Your task to perform on an android device: Open the calendar app, open the side menu, and click the "Day" option Image 0: 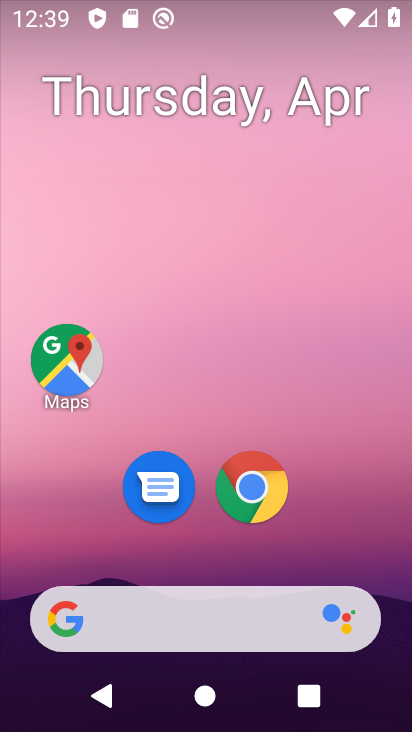
Step 0: drag from (396, 538) to (367, 87)
Your task to perform on an android device: Open the calendar app, open the side menu, and click the "Day" option Image 1: 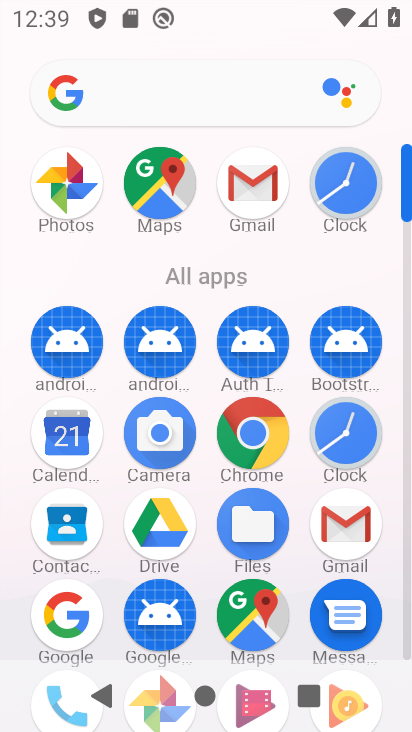
Step 1: click (79, 446)
Your task to perform on an android device: Open the calendar app, open the side menu, and click the "Day" option Image 2: 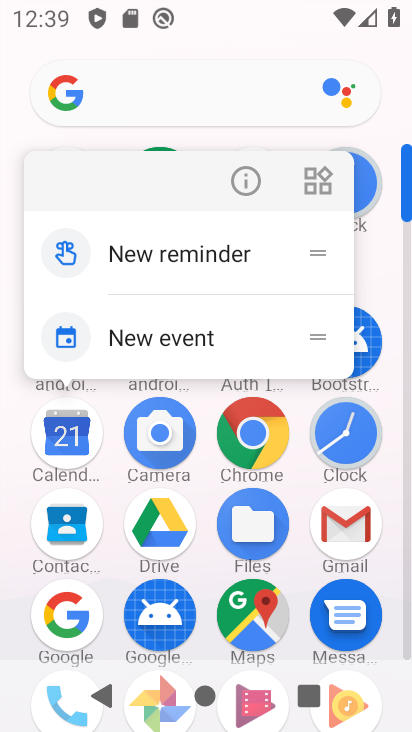
Step 2: click (76, 434)
Your task to perform on an android device: Open the calendar app, open the side menu, and click the "Day" option Image 3: 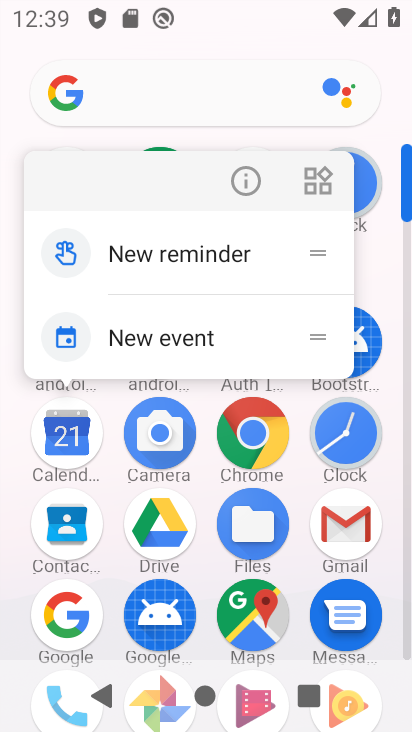
Step 3: click (76, 434)
Your task to perform on an android device: Open the calendar app, open the side menu, and click the "Day" option Image 4: 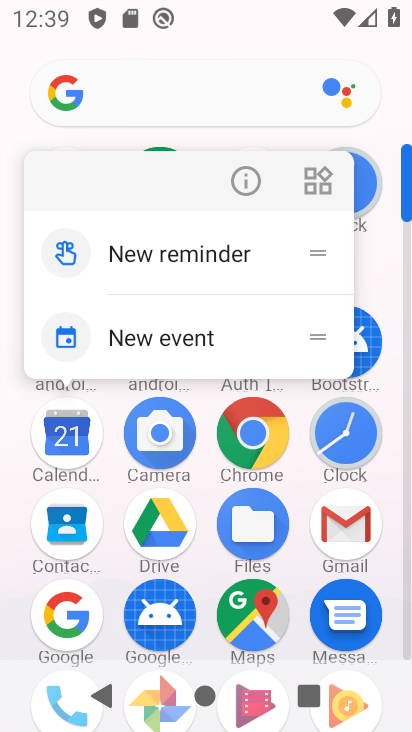
Step 4: click (71, 454)
Your task to perform on an android device: Open the calendar app, open the side menu, and click the "Day" option Image 5: 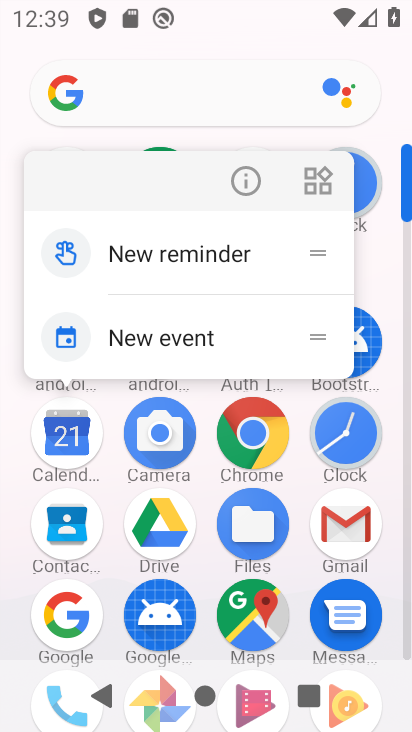
Step 5: click (71, 431)
Your task to perform on an android device: Open the calendar app, open the side menu, and click the "Day" option Image 6: 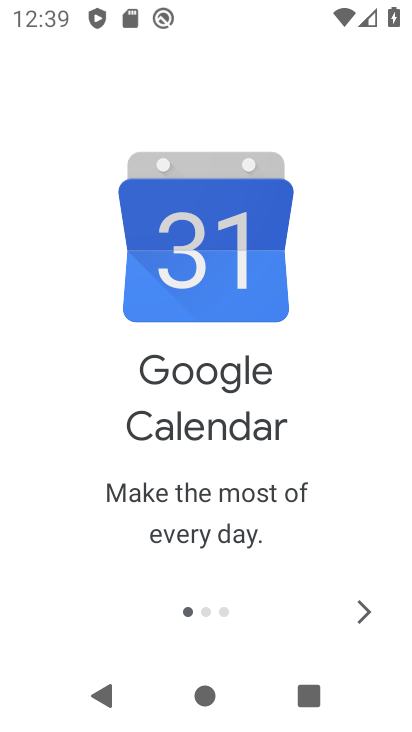
Step 6: click (361, 609)
Your task to perform on an android device: Open the calendar app, open the side menu, and click the "Day" option Image 7: 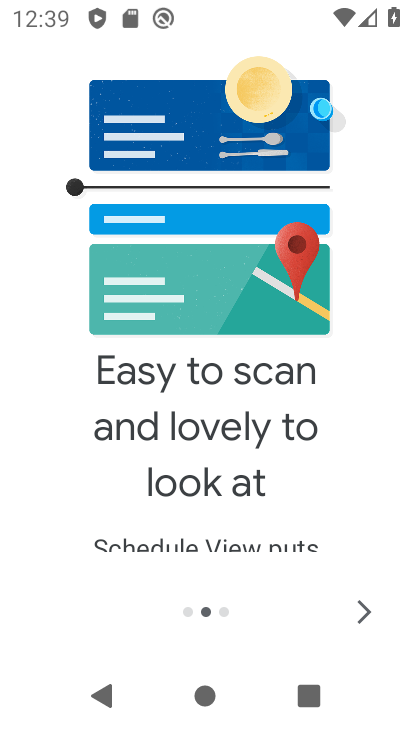
Step 7: click (361, 607)
Your task to perform on an android device: Open the calendar app, open the side menu, and click the "Day" option Image 8: 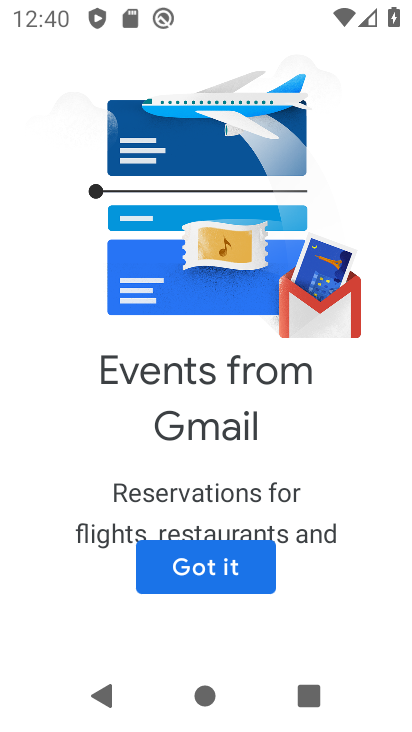
Step 8: click (208, 558)
Your task to perform on an android device: Open the calendar app, open the side menu, and click the "Day" option Image 9: 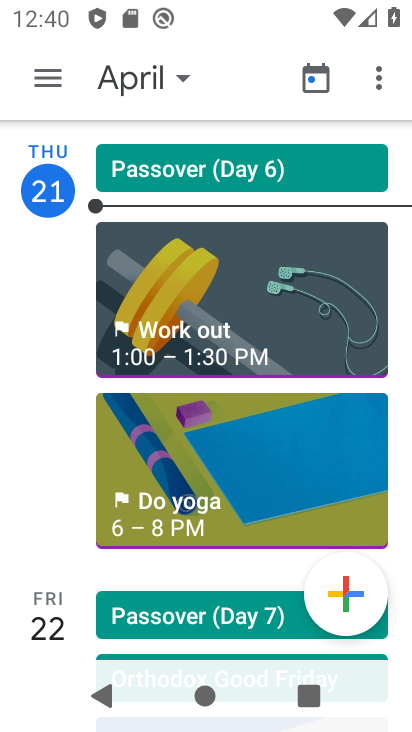
Step 9: click (42, 87)
Your task to perform on an android device: Open the calendar app, open the side menu, and click the "Day" option Image 10: 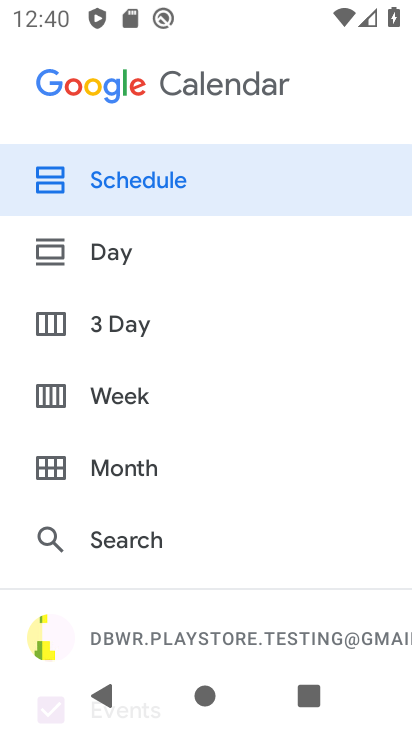
Step 10: click (108, 247)
Your task to perform on an android device: Open the calendar app, open the side menu, and click the "Day" option Image 11: 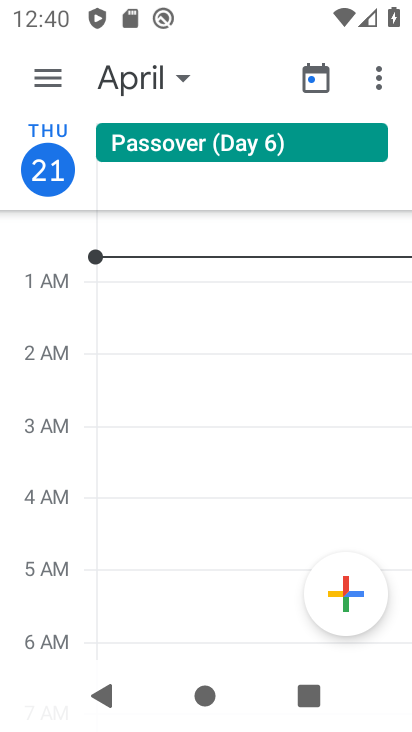
Step 11: task complete